Your task to perform on an android device: Set the phone to "Do not disturb". Image 0: 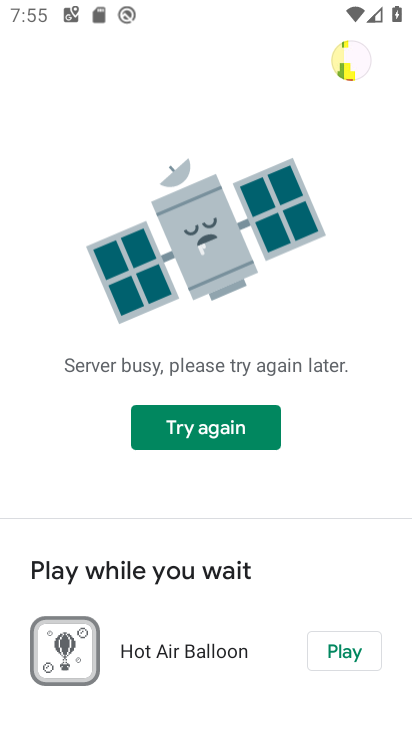
Step 0: press home button
Your task to perform on an android device: Set the phone to "Do not disturb". Image 1: 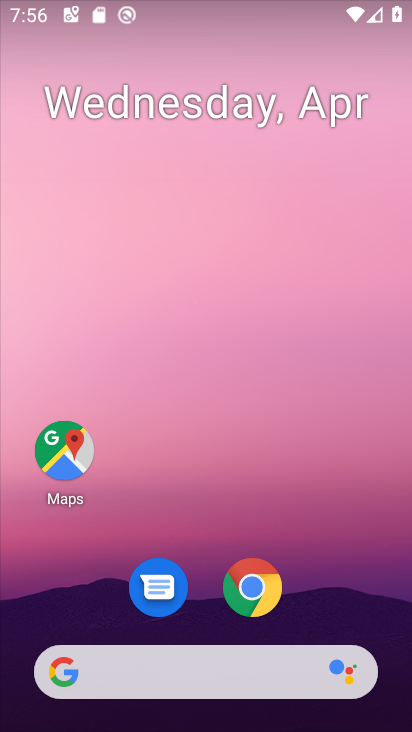
Step 1: drag from (287, 21) to (289, 570)
Your task to perform on an android device: Set the phone to "Do not disturb". Image 2: 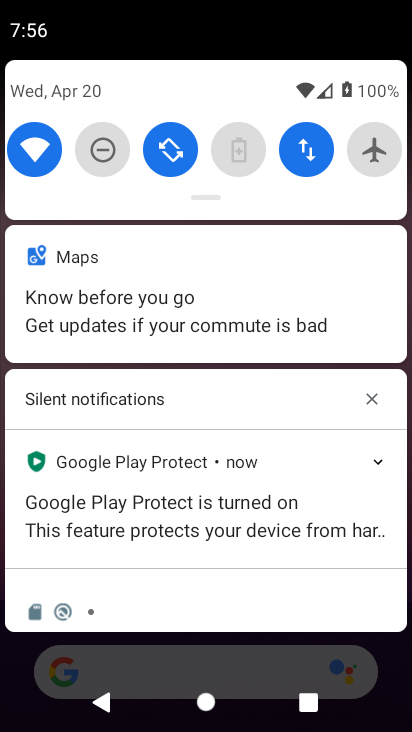
Step 2: click (92, 143)
Your task to perform on an android device: Set the phone to "Do not disturb". Image 3: 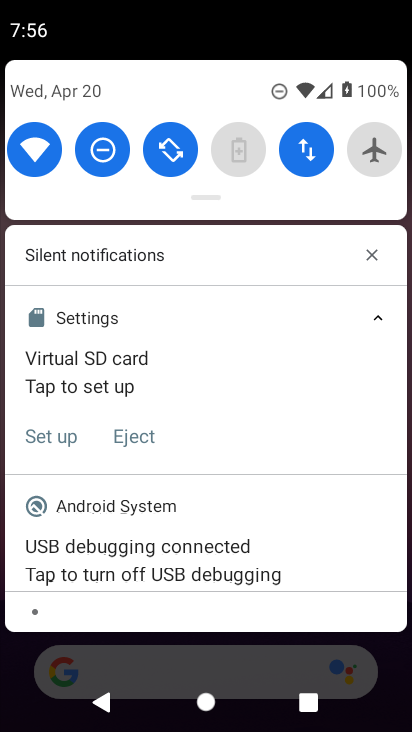
Step 3: task complete